Your task to perform on an android device: Go to internet settings Image 0: 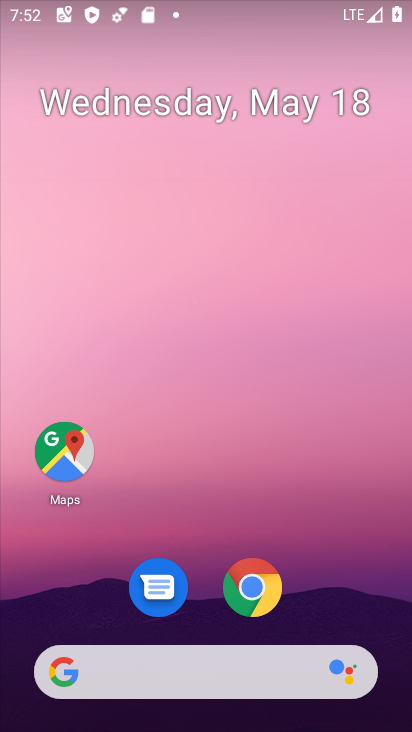
Step 0: drag from (209, 8) to (310, 645)
Your task to perform on an android device: Go to internet settings Image 1: 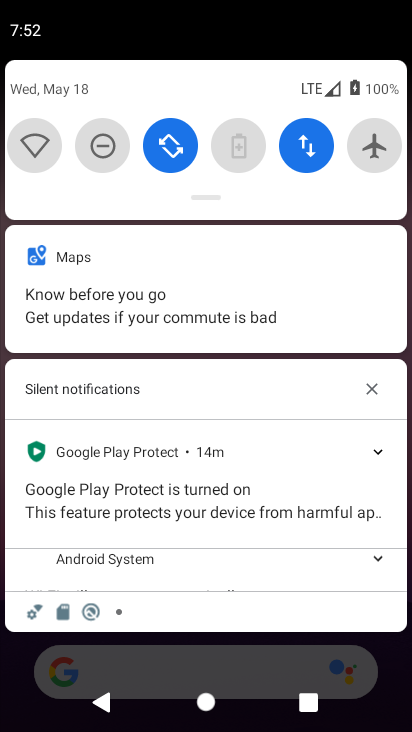
Step 1: click (312, 144)
Your task to perform on an android device: Go to internet settings Image 2: 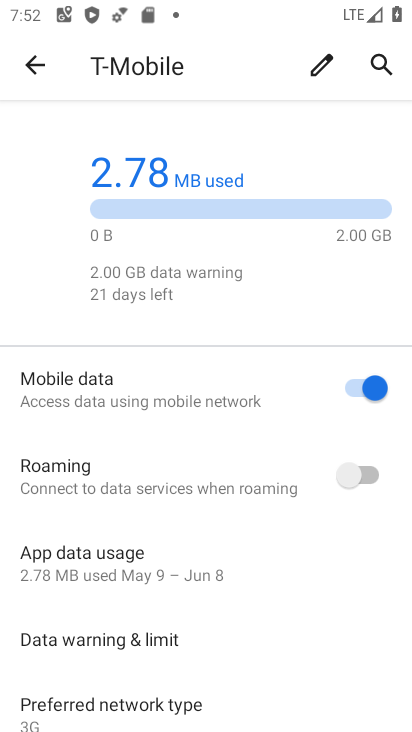
Step 2: task complete